Your task to perform on an android device: check android version Image 0: 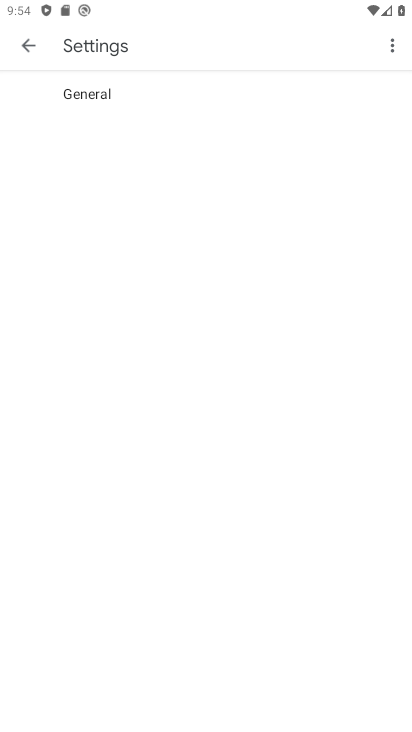
Step 0: press home button
Your task to perform on an android device: check android version Image 1: 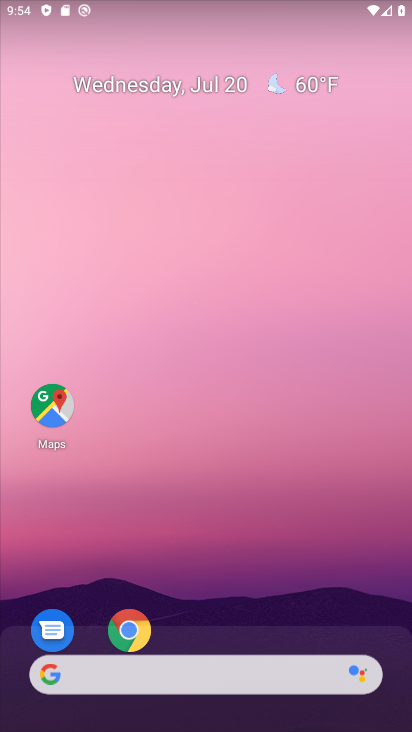
Step 1: drag from (299, 487) to (179, 103)
Your task to perform on an android device: check android version Image 2: 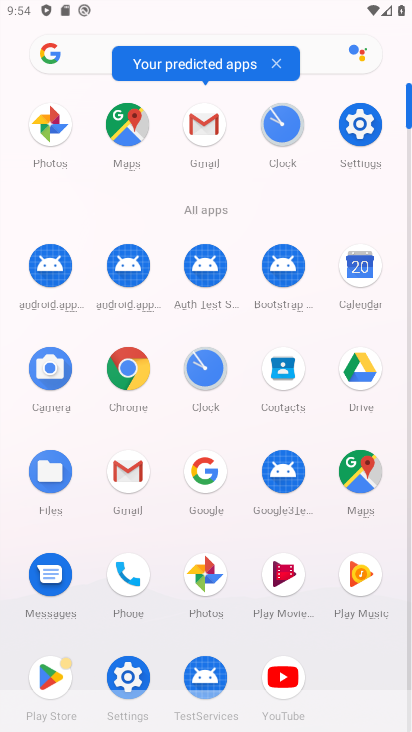
Step 2: click (348, 123)
Your task to perform on an android device: check android version Image 3: 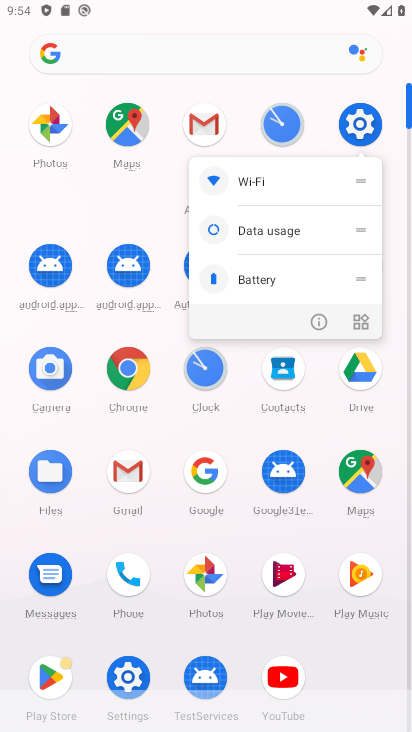
Step 3: click (348, 122)
Your task to perform on an android device: check android version Image 4: 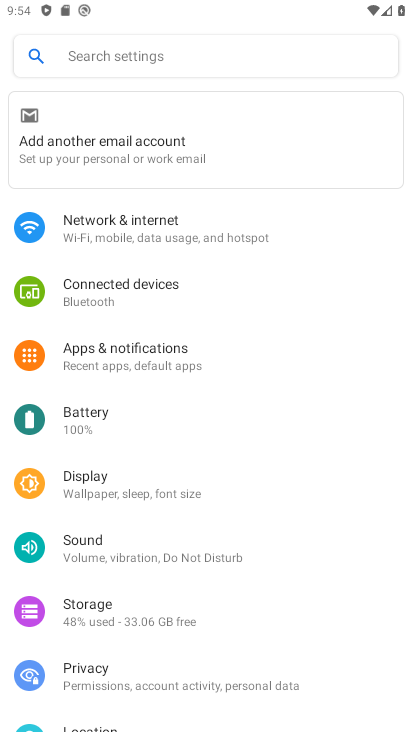
Step 4: drag from (200, 601) to (204, 14)
Your task to perform on an android device: check android version Image 5: 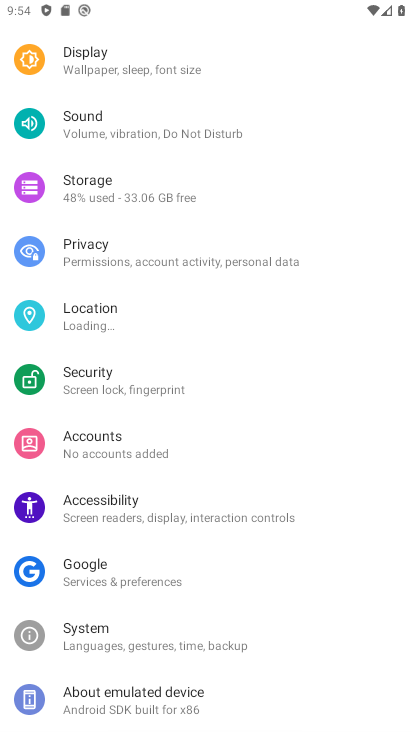
Step 5: drag from (168, 578) to (177, 33)
Your task to perform on an android device: check android version Image 6: 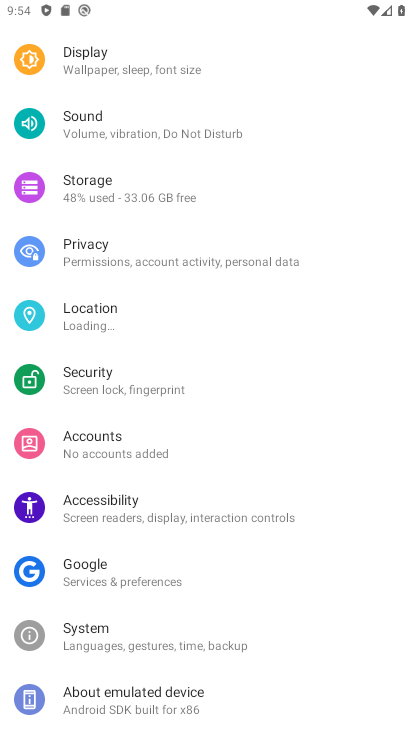
Step 6: click (134, 709)
Your task to perform on an android device: check android version Image 7: 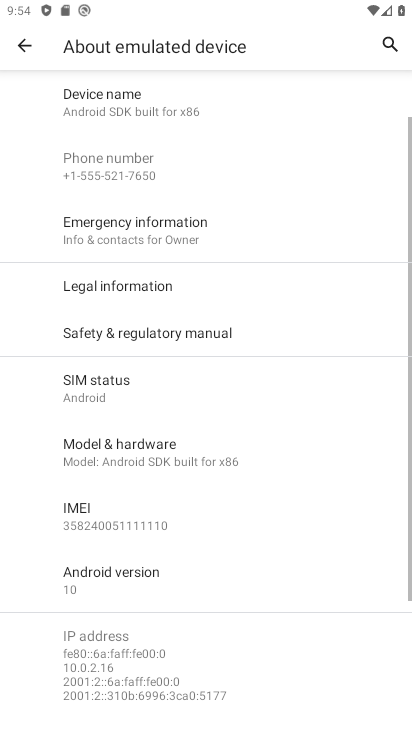
Step 7: click (120, 586)
Your task to perform on an android device: check android version Image 8: 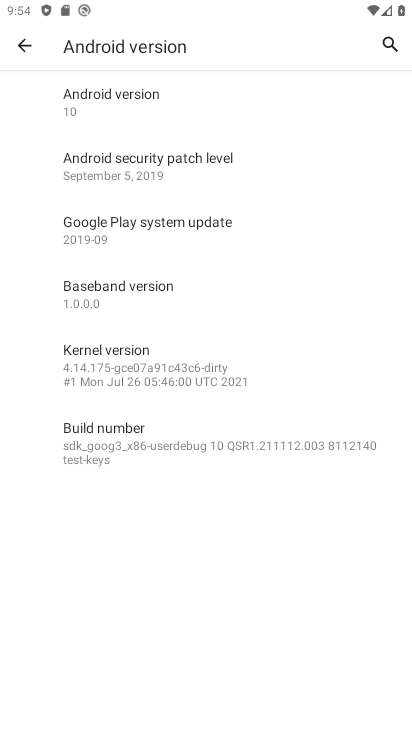
Step 8: task complete